Your task to perform on an android device: Toggle the flashlight Image 0: 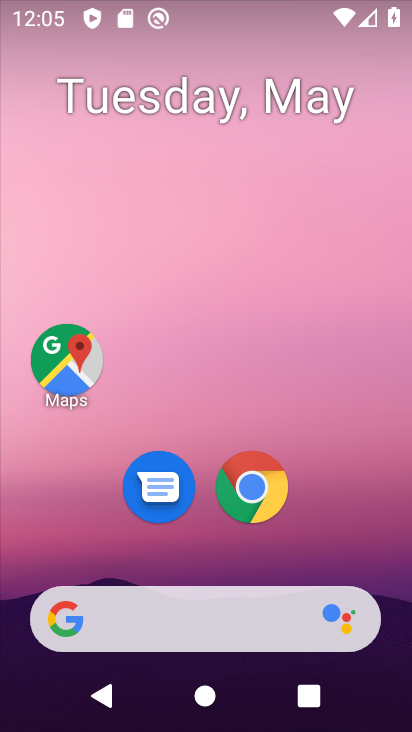
Step 0: drag from (354, 497) to (236, 4)
Your task to perform on an android device: Toggle the flashlight Image 1: 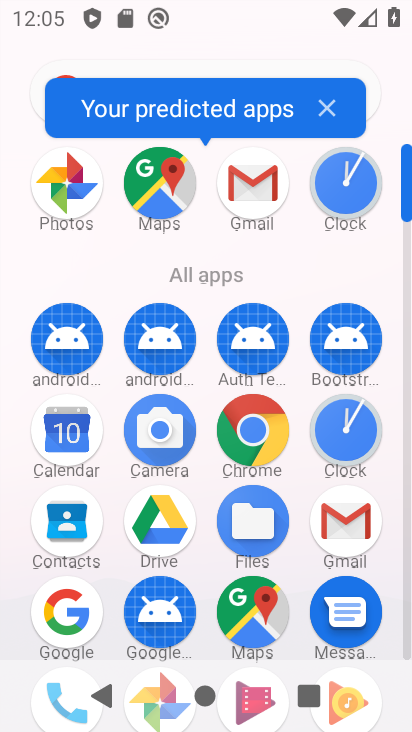
Step 1: drag from (1, 590) to (14, 236)
Your task to perform on an android device: Toggle the flashlight Image 2: 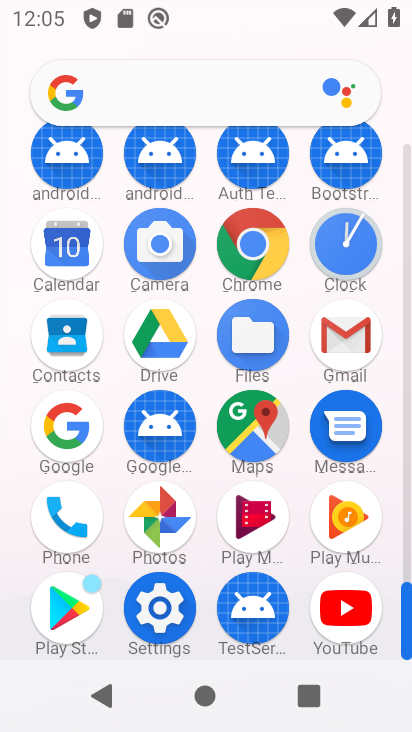
Step 2: click (157, 607)
Your task to perform on an android device: Toggle the flashlight Image 3: 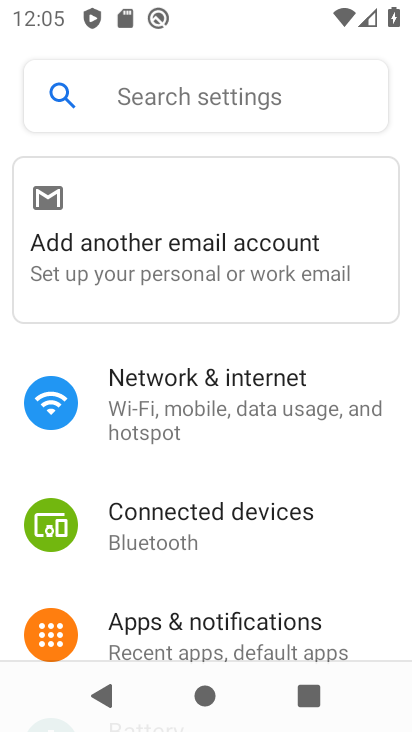
Step 3: click (166, 408)
Your task to perform on an android device: Toggle the flashlight Image 4: 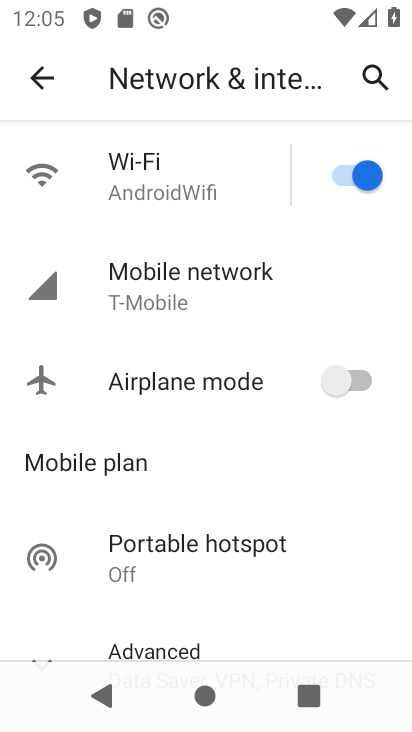
Step 4: drag from (170, 584) to (175, 227)
Your task to perform on an android device: Toggle the flashlight Image 5: 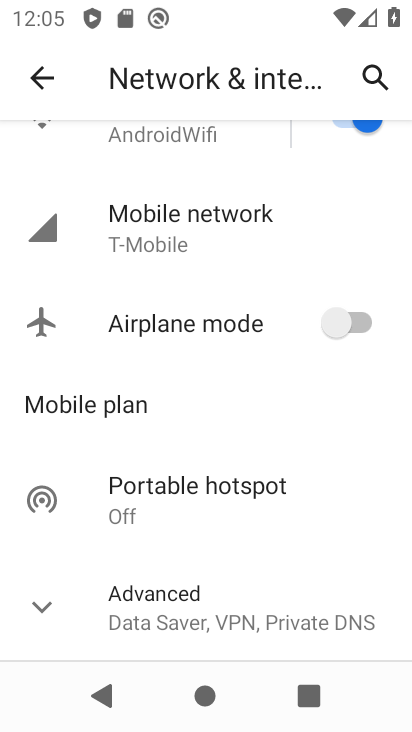
Step 5: click (52, 589)
Your task to perform on an android device: Toggle the flashlight Image 6: 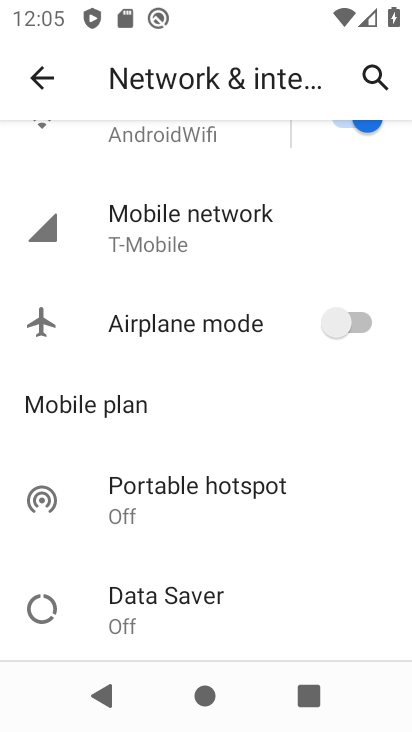
Step 6: task complete